Your task to perform on an android device: Go to ESPN.com Image 0: 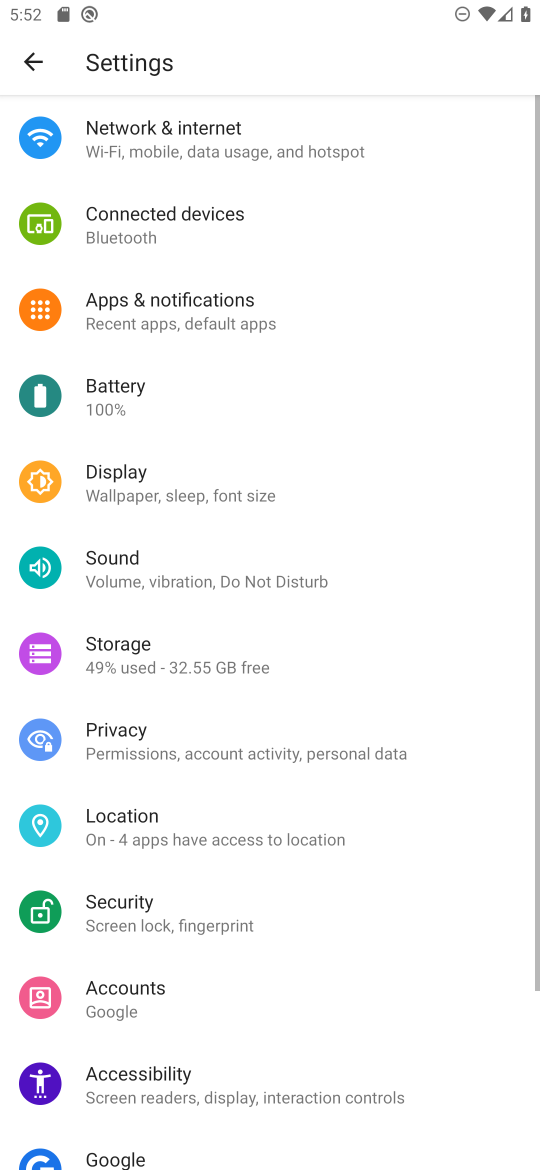
Step 0: press home button
Your task to perform on an android device: Go to ESPN.com Image 1: 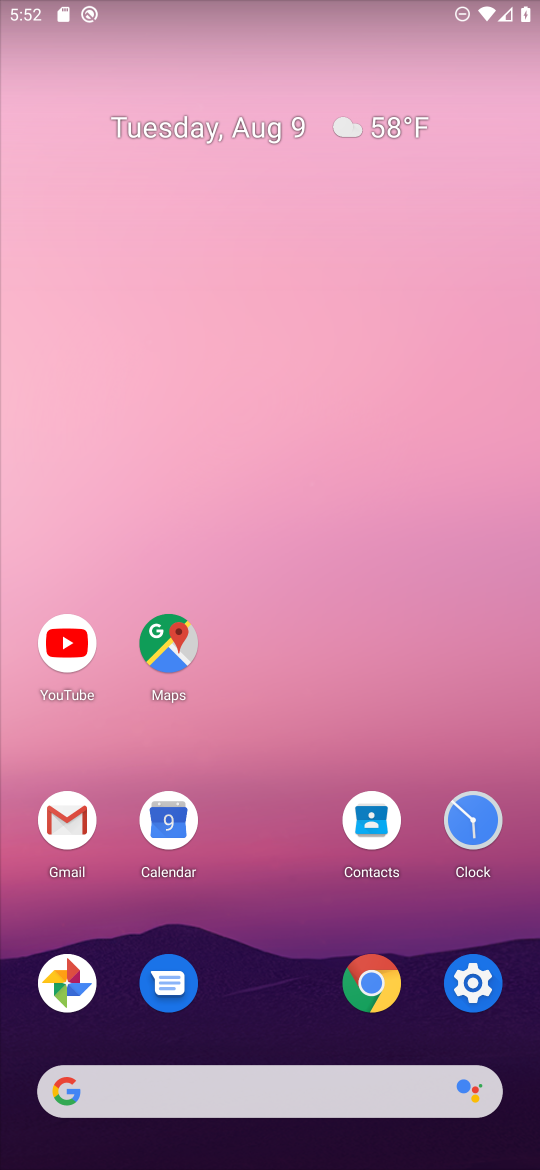
Step 1: click (374, 975)
Your task to perform on an android device: Go to ESPN.com Image 2: 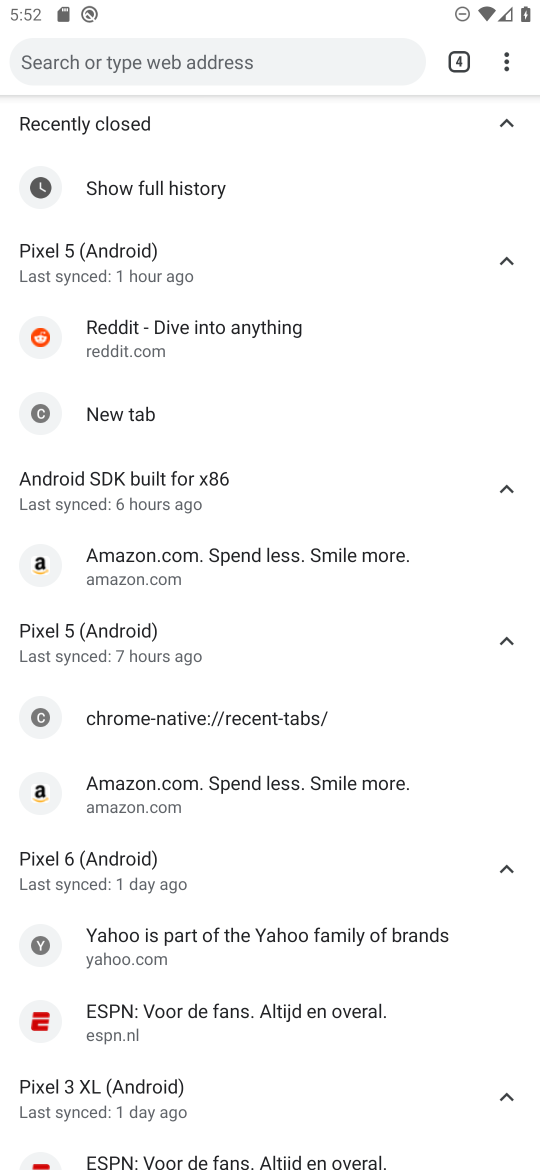
Step 2: click (507, 51)
Your task to perform on an android device: Go to ESPN.com Image 3: 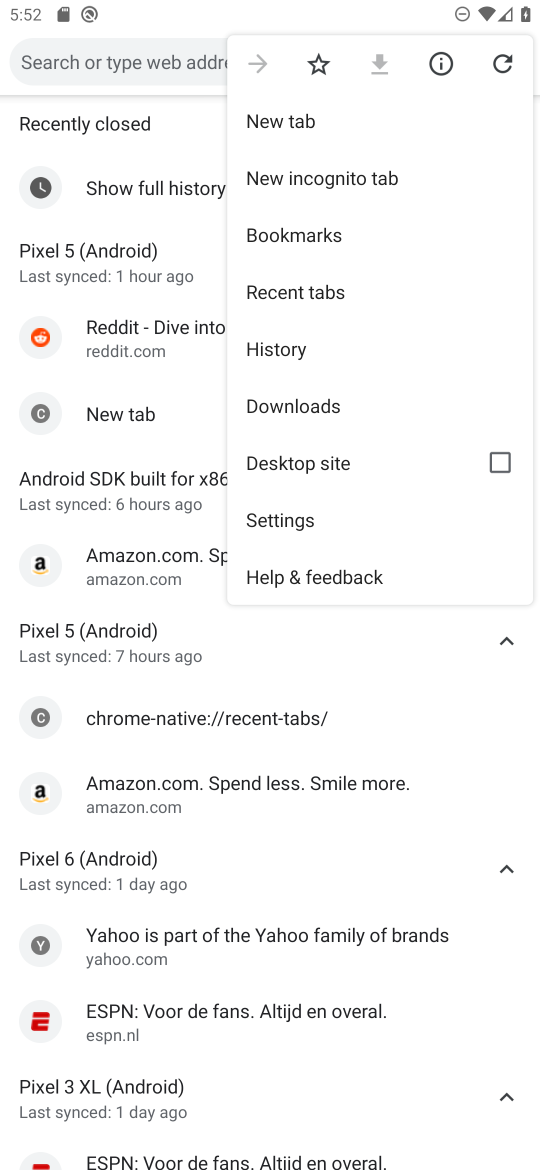
Step 3: click (279, 118)
Your task to perform on an android device: Go to ESPN.com Image 4: 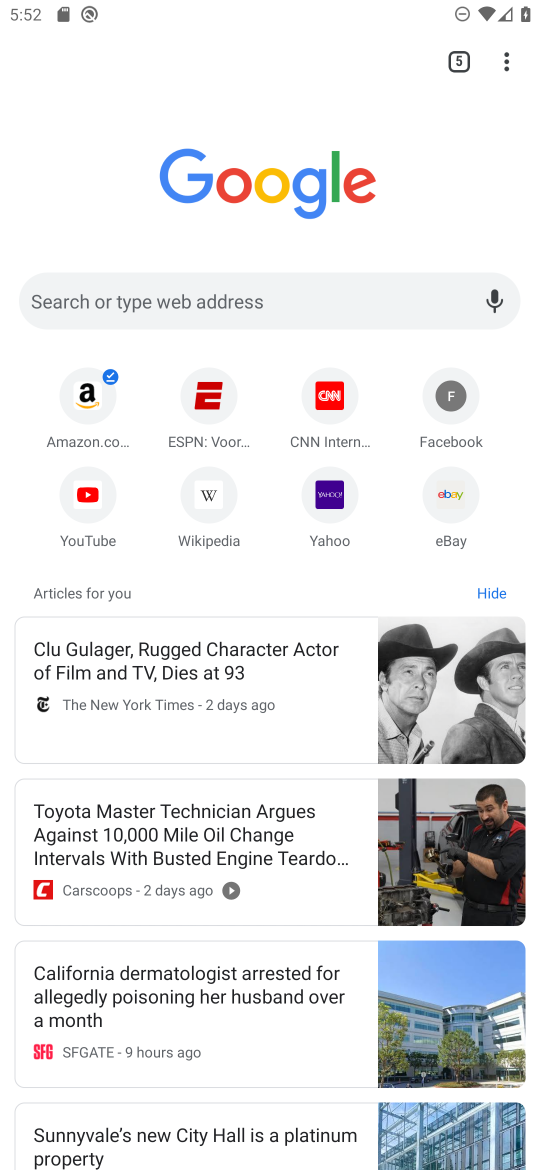
Step 4: click (213, 386)
Your task to perform on an android device: Go to ESPN.com Image 5: 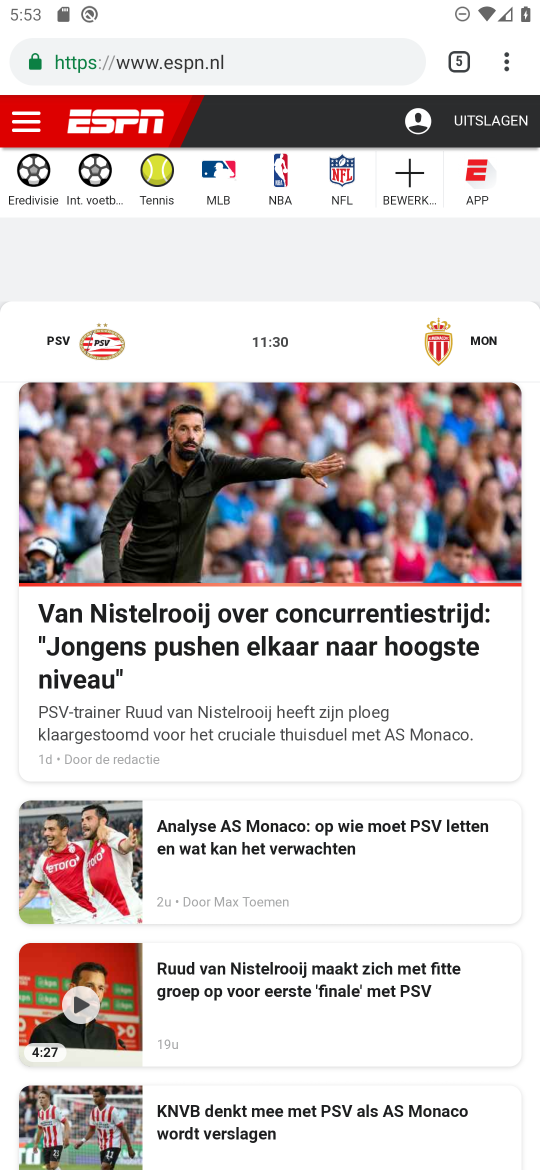
Step 5: task complete